Your task to perform on an android device: Open eBay Image 0: 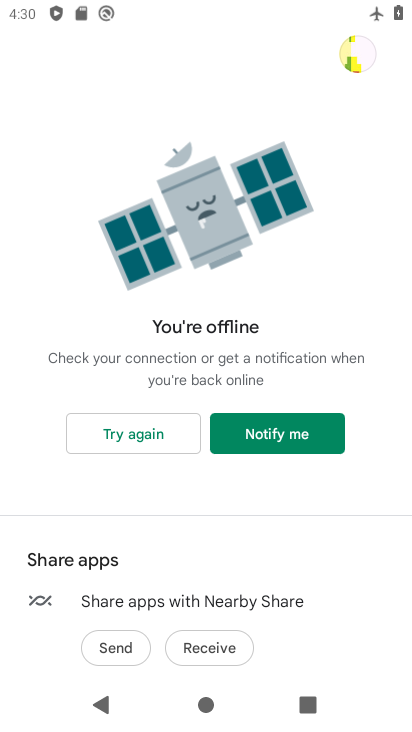
Step 0: click (155, 443)
Your task to perform on an android device: Open eBay Image 1: 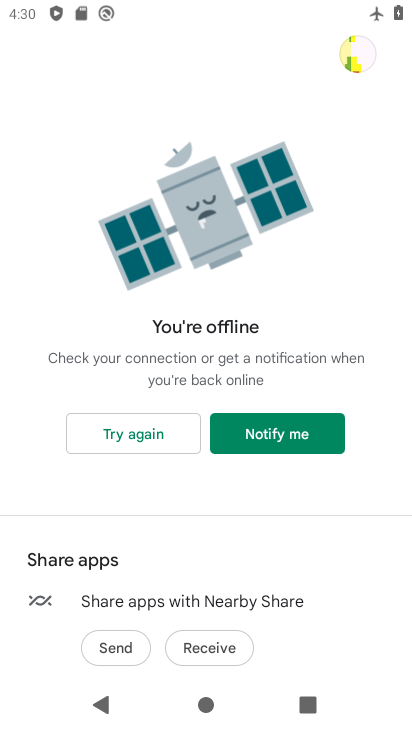
Step 1: press home button
Your task to perform on an android device: Open eBay Image 2: 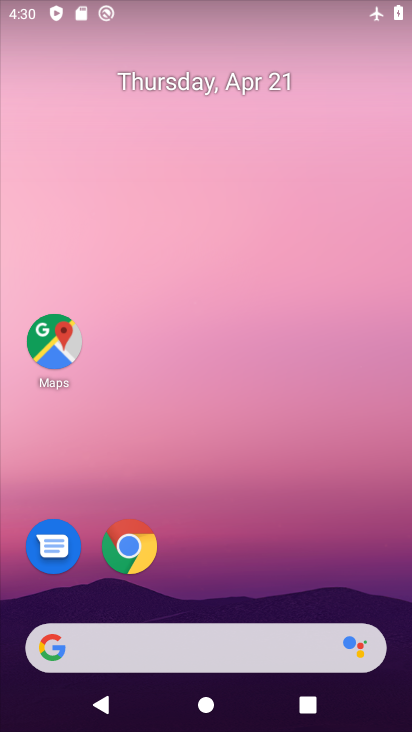
Step 2: drag from (274, 575) to (252, 113)
Your task to perform on an android device: Open eBay Image 3: 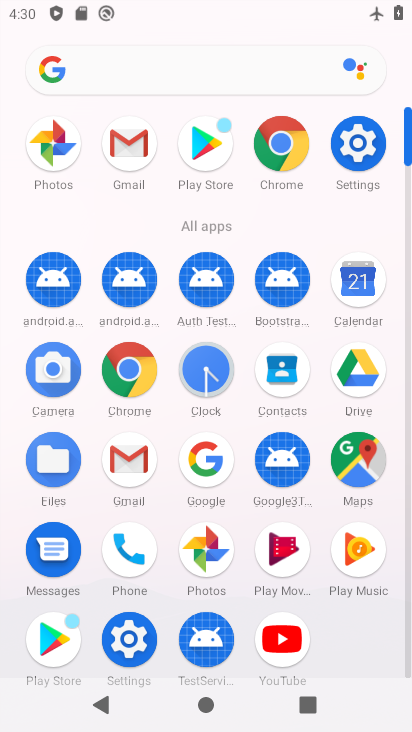
Step 3: click (266, 141)
Your task to perform on an android device: Open eBay Image 4: 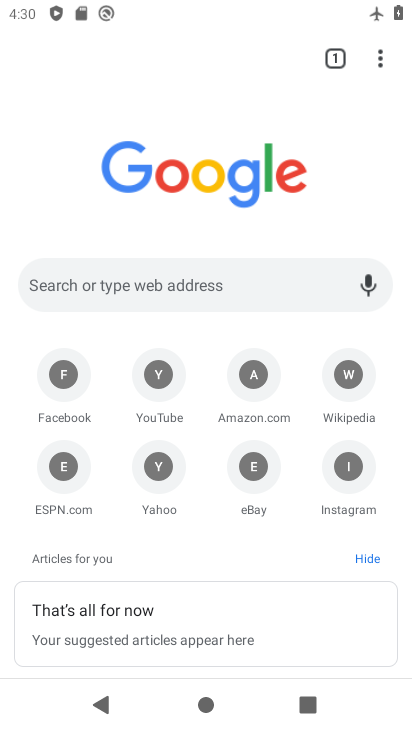
Step 4: click (267, 142)
Your task to perform on an android device: Open eBay Image 5: 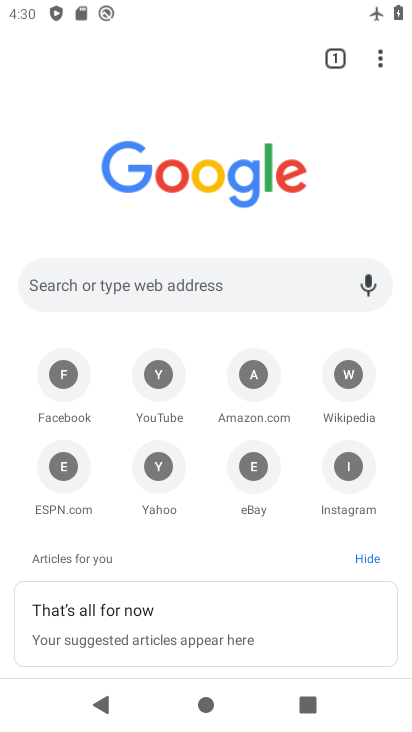
Step 5: click (256, 477)
Your task to perform on an android device: Open eBay Image 6: 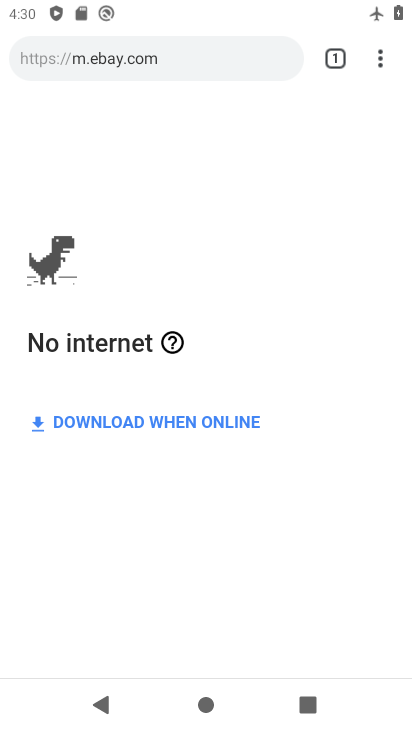
Step 6: task complete